Your task to perform on an android device: Open calendar and show me the first week of next month Image 0: 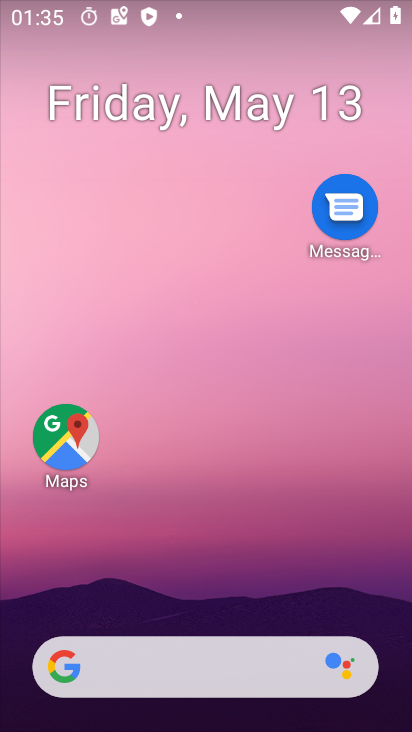
Step 0: press home button
Your task to perform on an android device: Open calendar and show me the first week of next month Image 1: 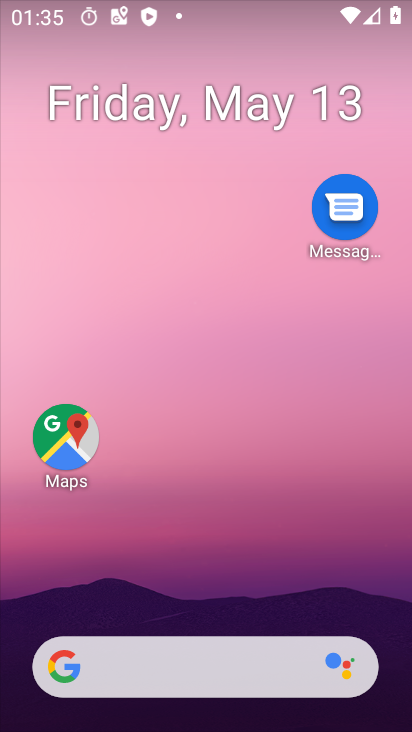
Step 1: drag from (323, 569) to (336, 4)
Your task to perform on an android device: Open calendar and show me the first week of next month Image 2: 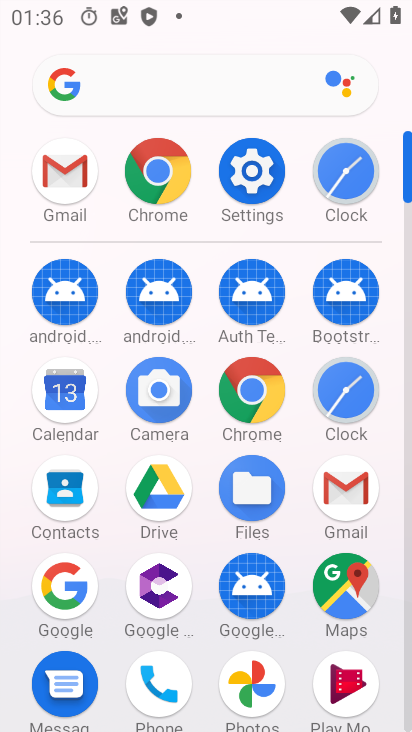
Step 2: drag from (205, 260) to (214, 0)
Your task to perform on an android device: Open calendar and show me the first week of next month Image 3: 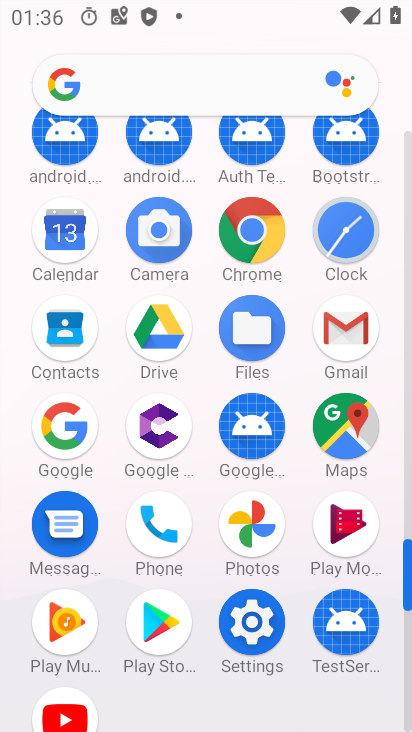
Step 3: click (66, 229)
Your task to perform on an android device: Open calendar and show me the first week of next month Image 4: 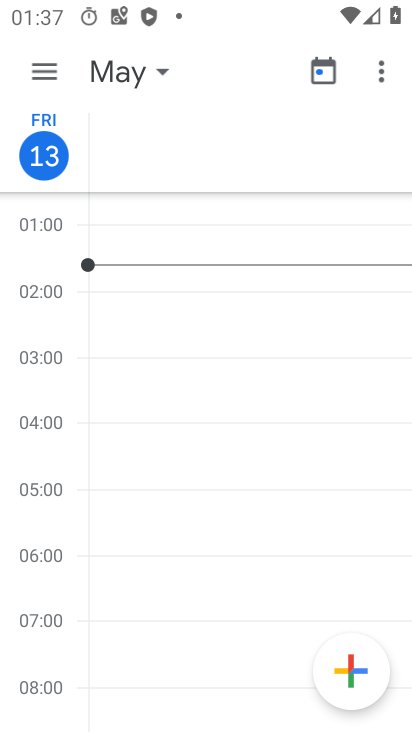
Step 4: click (115, 65)
Your task to perform on an android device: Open calendar and show me the first week of next month Image 5: 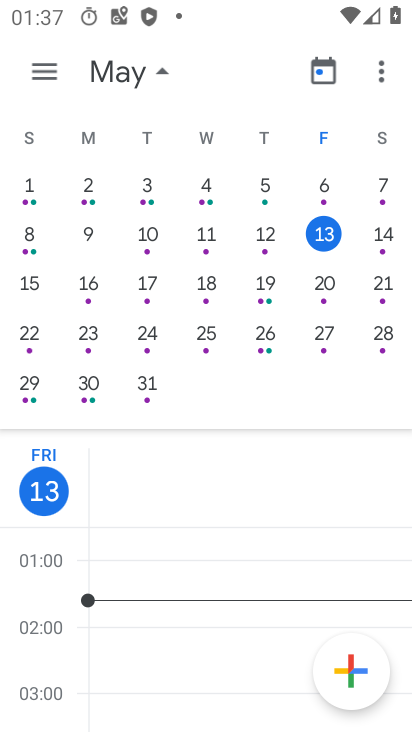
Step 5: drag from (390, 211) to (12, 234)
Your task to perform on an android device: Open calendar and show me the first week of next month Image 6: 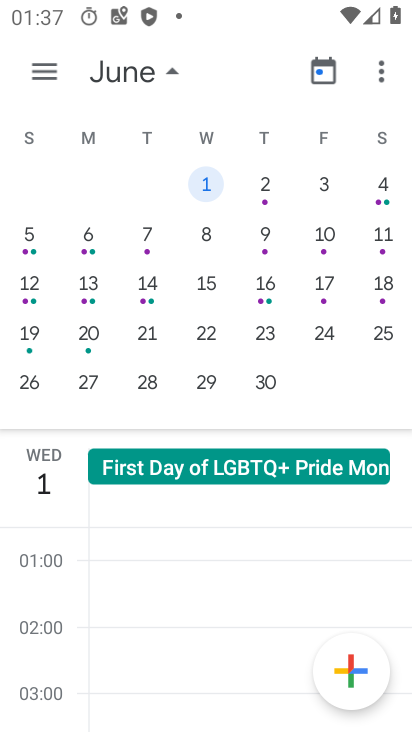
Step 6: click (331, 180)
Your task to perform on an android device: Open calendar and show me the first week of next month Image 7: 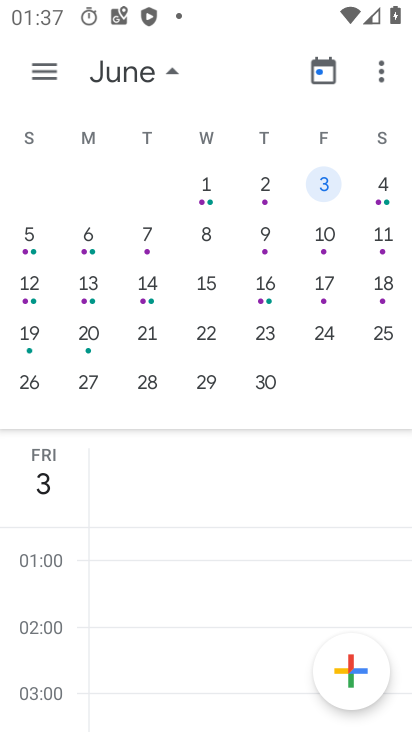
Step 7: task complete